Your task to perform on an android device: turn pop-ups on in chrome Image 0: 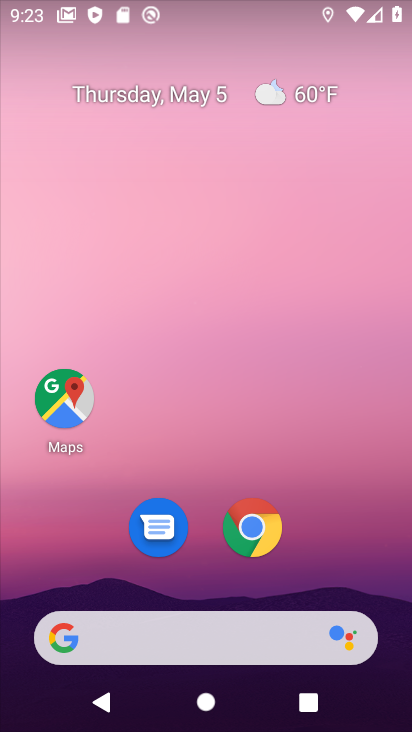
Step 0: drag from (106, 552) to (224, 168)
Your task to perform on an android device: turn pop-ups on in chrome Image 1: 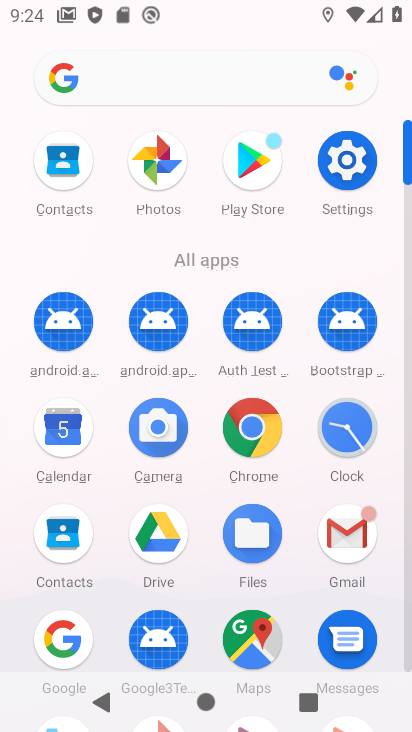
Step 1: click (260, 427)
Your task to perform on an android device: turn pop-ups on in chrome Image 2: 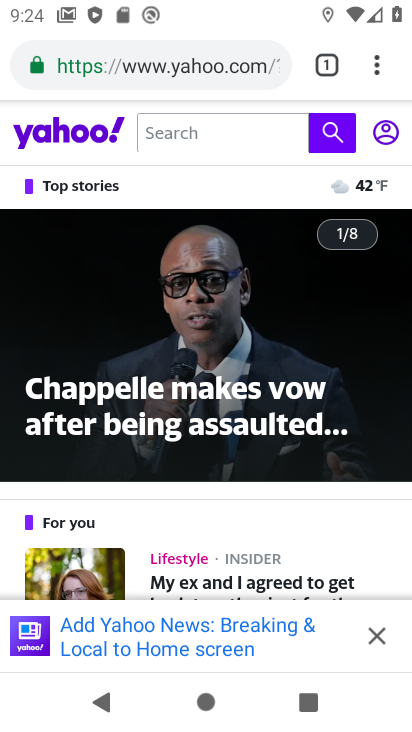
Step 2: drag from (365, 69) to (266, 588)
Your task to perform on an android device: turn pop-ups on in chrome Image 3: 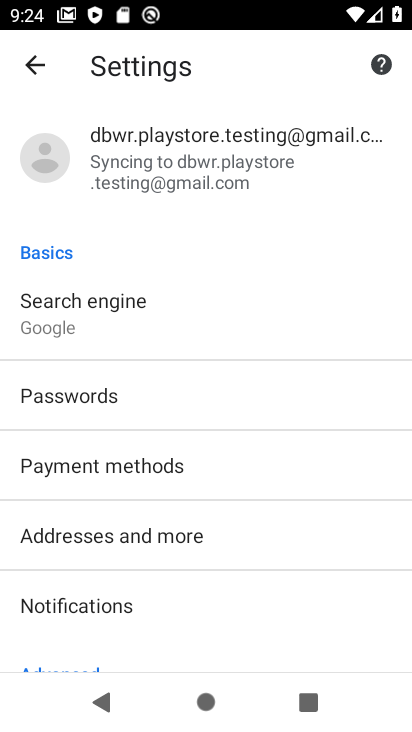
Step 3: drag from (180, 618) to (253, 282)
Your task to perform on an android device: turn pop-ups on in chrome Image 4: 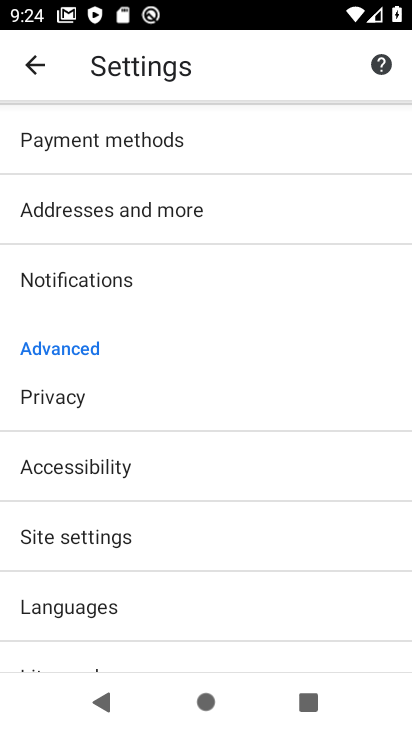
Step 4: click (169, 546)
Your task to perform on an android device: turn pop-ups on in chrome Image 5: 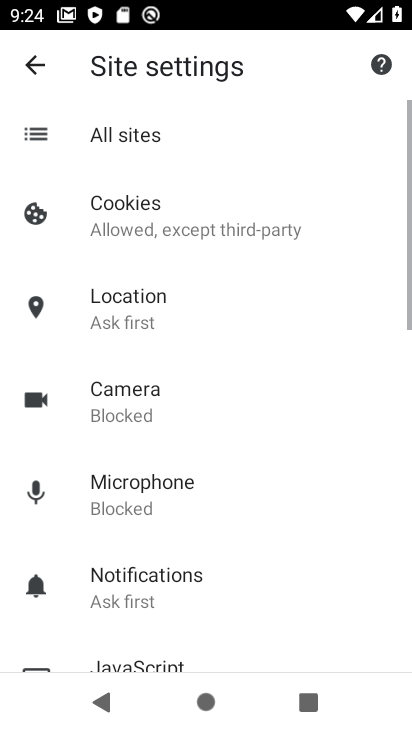
Step 5: drag from (113, 635) to (229, 168)
Your task to perform on an android device: turn pop-ups on in chrome Image 6: 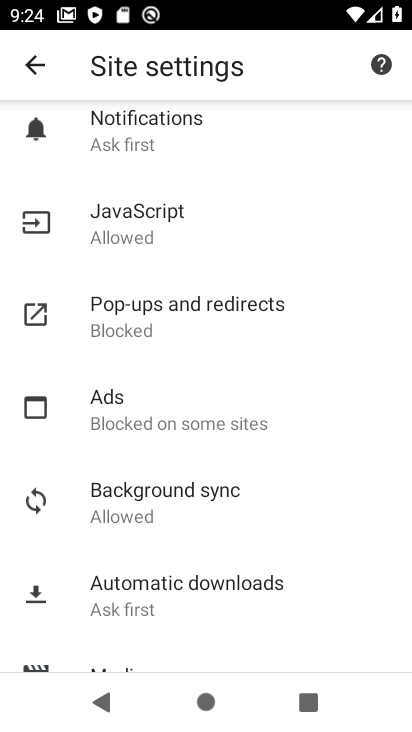
Step 6: drag from (169, 590) to (275, 228)
Your task to perform on an android device: turn pop-ups on in chrome Image 7: 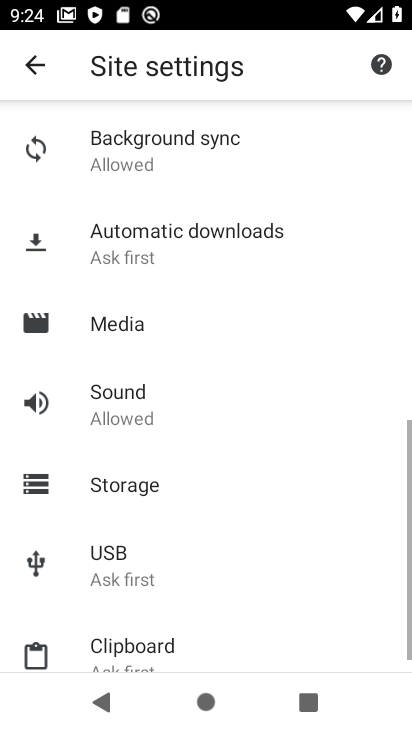
Step 7: drag from (213, 535) to (234, 612)
Your task to perform on an android device: turn pop-ups on in chrome Image 8: 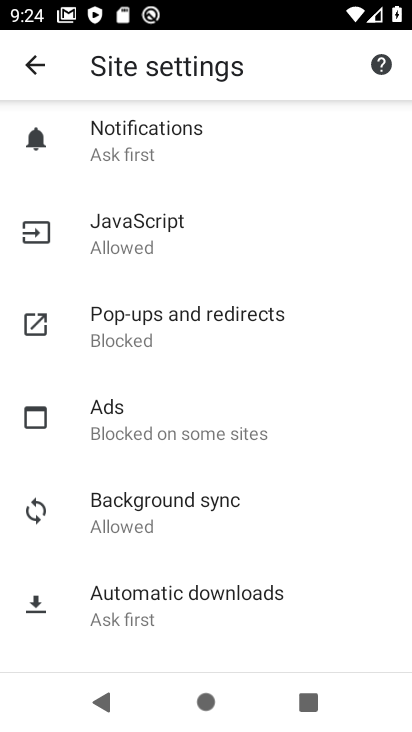
Step 8: click (282, 340)
Your task to perform on an android device: turn pop-ups on in chrome Image 9: 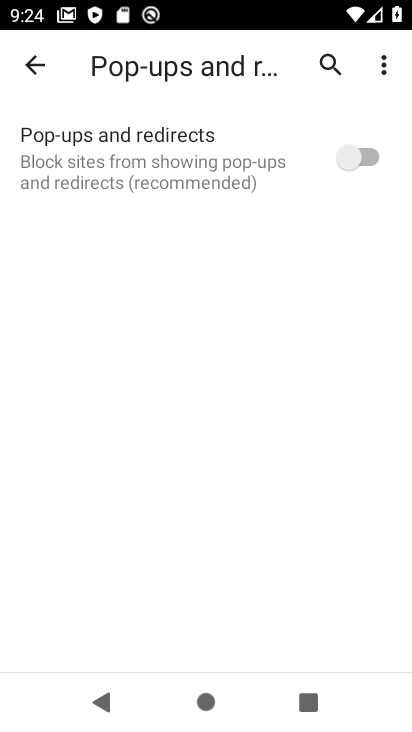
Step 9: click (387, 159)
Your task to perform on an android device: turn pop-ups on in chrome Image 10: 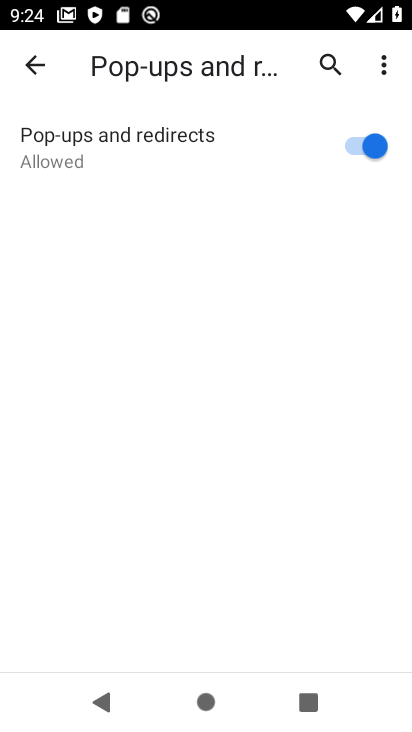
Step 10: task complete